Your task to perform on an android device: Go to ESPN.com Image 0: 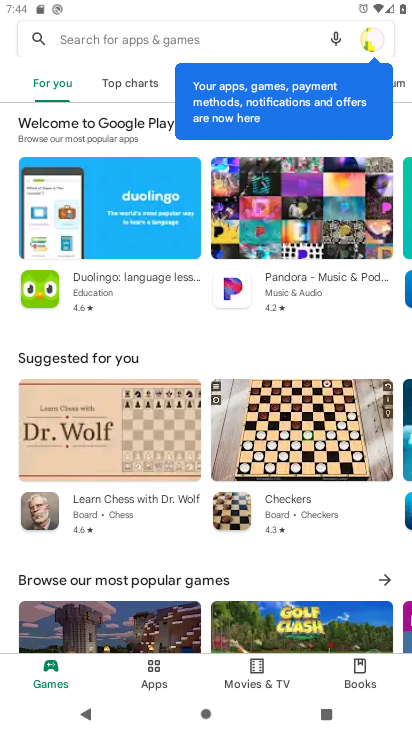
Step 0: press home button
Your task to perform on an android device: Go to ESPN.com Image 1: 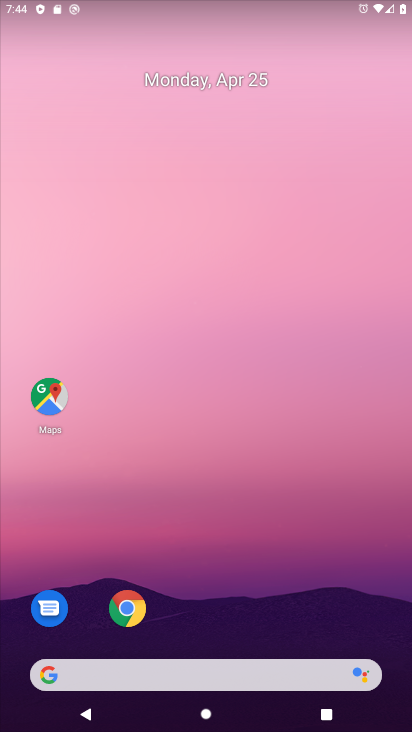
Step 1: click (131, 610)
Your task to perform on an android device: Go to ESPN.com Image 2: 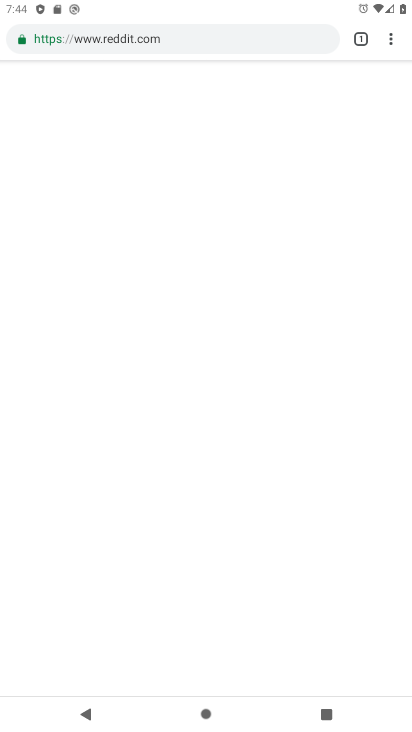
Step 2: click (360, 38)
Your task to perform on an android device: Go to ESPN.com Image 3: 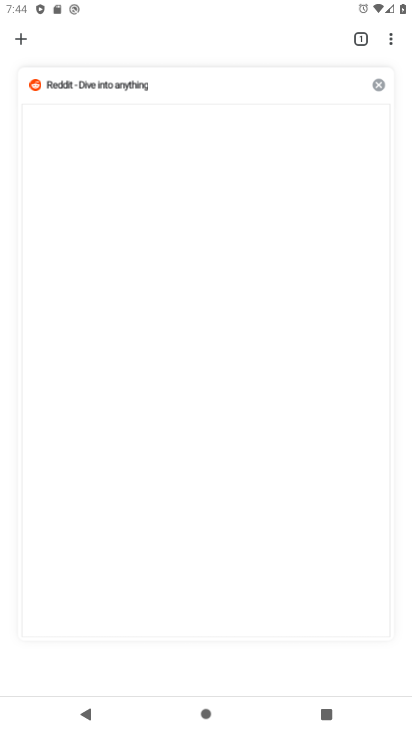
Step 3: click (23, 39)
Your task to perform on an android device: Go to ESPN.com Image 4: 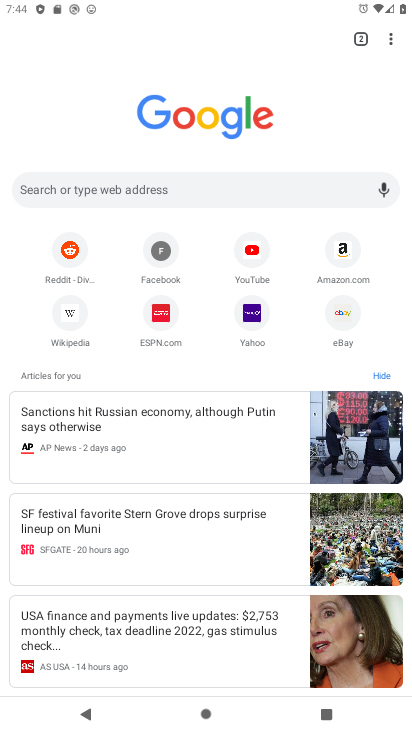
Step 4: click (169, 314)
Your task to perform on an android device: Go to ESPN.com Image 5: 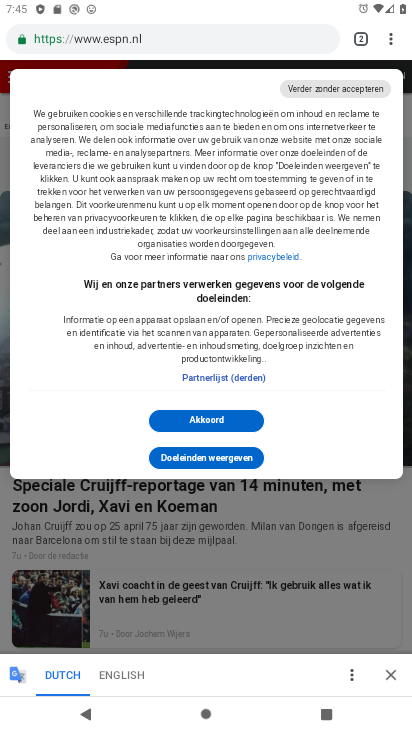
Step 5: task complete